Your task to perform on an android device: Search for vegetarian restaurants on Maps Image 0: 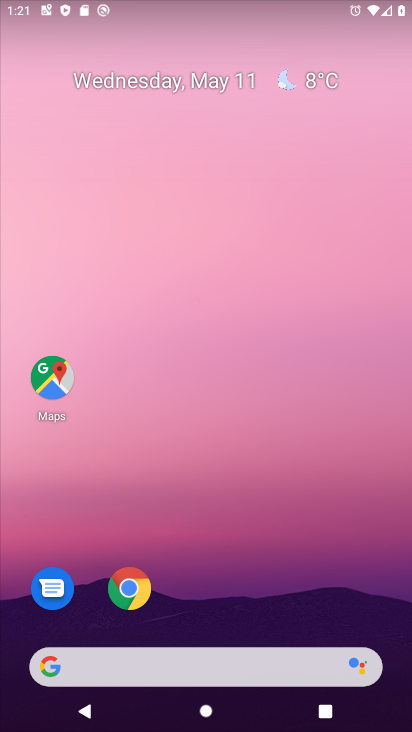
Step 0: click (43, 381)
Your task to perform on an android device: Search for vegetarian restaurants on Maps Image 1: 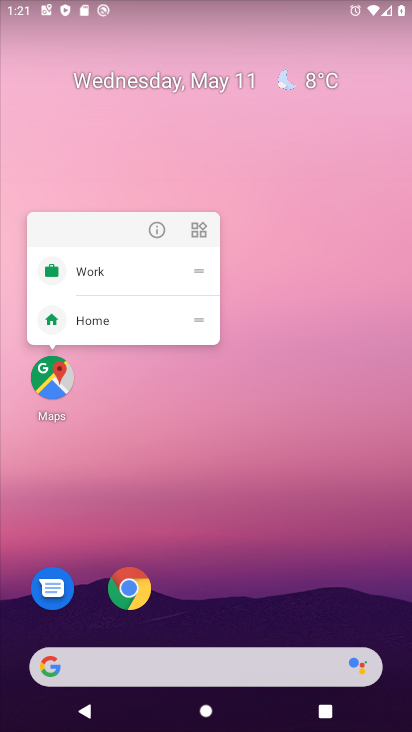
Step 1: click (43, 381)
Your task to perform on an android device: Search for vegetarian restaurants on Maps Image 2: 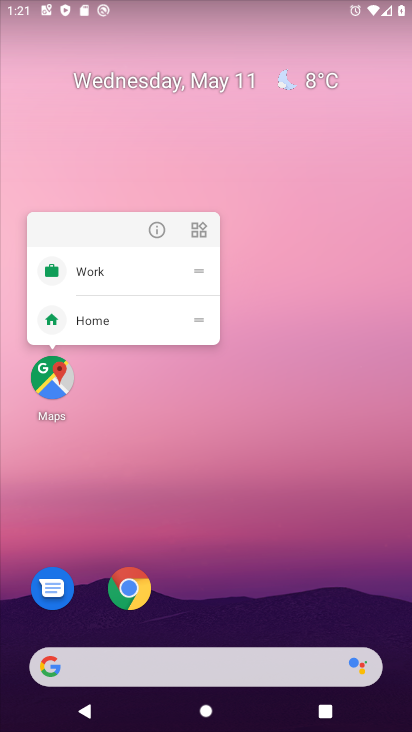
Step 2: click (68, 377)
Your task to perform on an android device: Search for vegetarian restaurants on Maps Image 3: 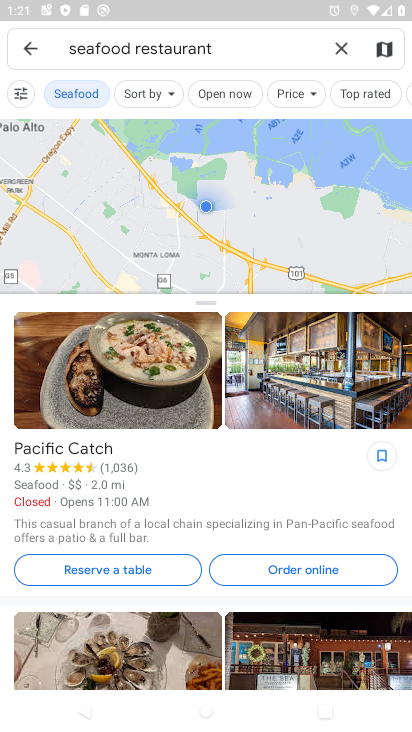
Step 3: click (357, 58)
Your task to perform on an android device: Search for vegetarian restaurants on Maps Image 4: 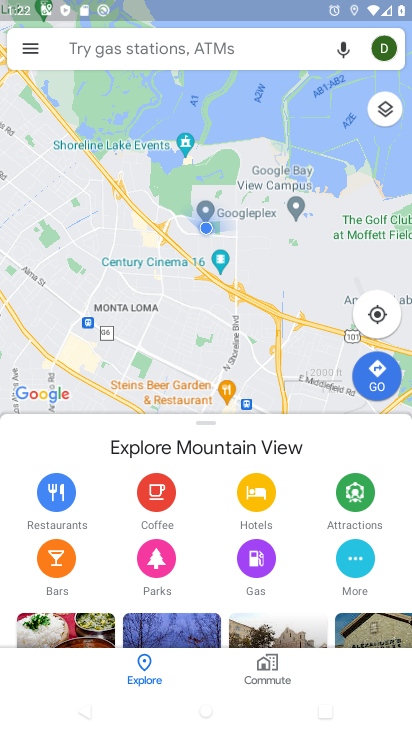
Step 4: click (124, 55)
Your task to perform on an android device: Search for vegetarian restaurants on Maps Image 5: 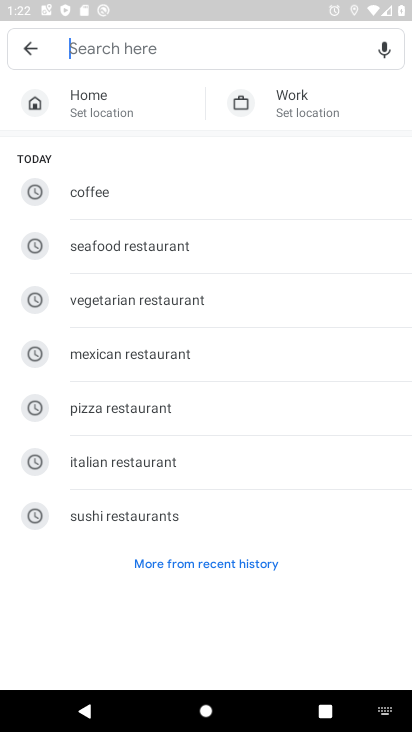
Step 5: type "vegetarian restaurant"
Your task to perform on an android device: Search for vegetarian restaurants on Maps Image 6: 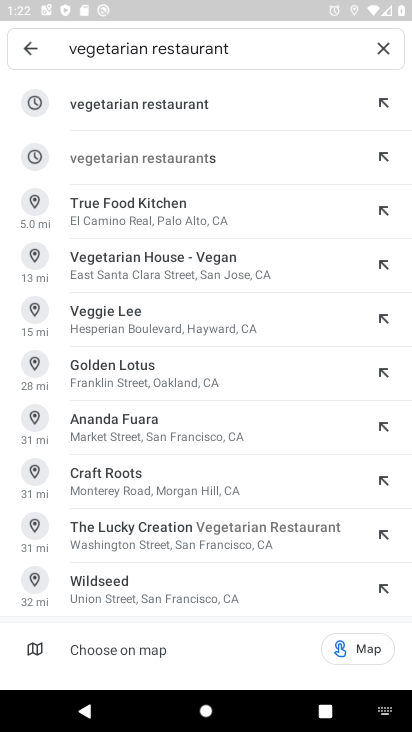
Step 6: click (151, 106)
Your task to perform on an android device: Search for vegetarian restaurants on Maps Image 7: 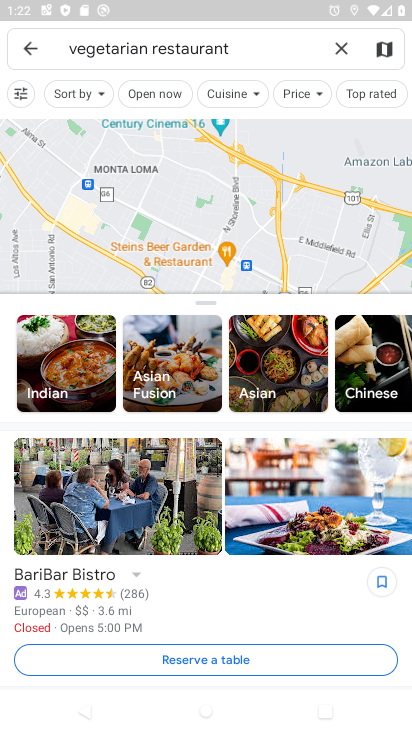
Step 7: task complete